Your task to perform on an android device: stop showing notifications on the lock screen Image 0: 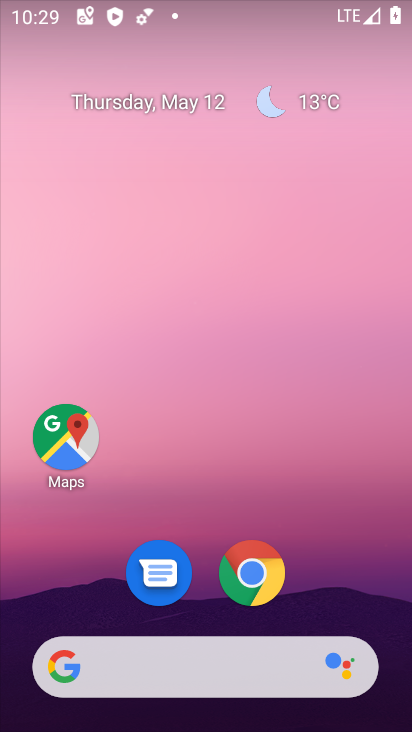
Step 0: drag from (212, 631) to (156, 6)
Your task to perform on an android device: stop showing notifications on the lock screen Image 1: 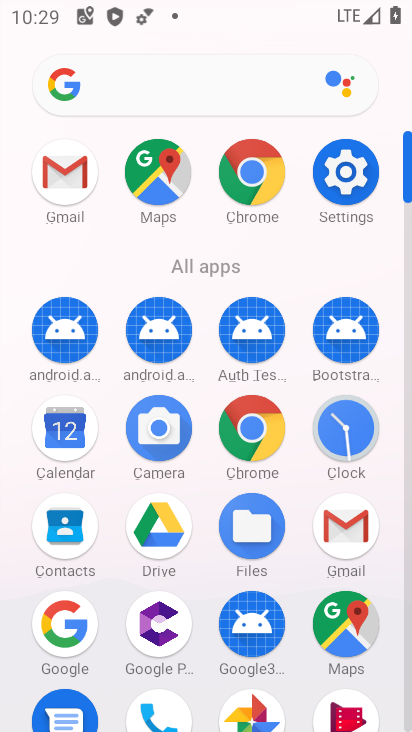
Step 1: click (355, 181)
Your task to perform on an android device: stop showing notifications on the lock screen Image 2: 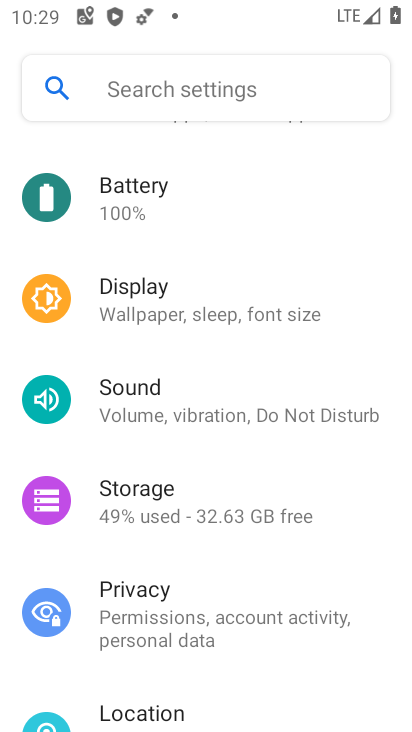
Step 2: drag from (243, 609) to (197, 100)
Your task to perform on an android device: stop showing notifications on the lock screen Image 3: 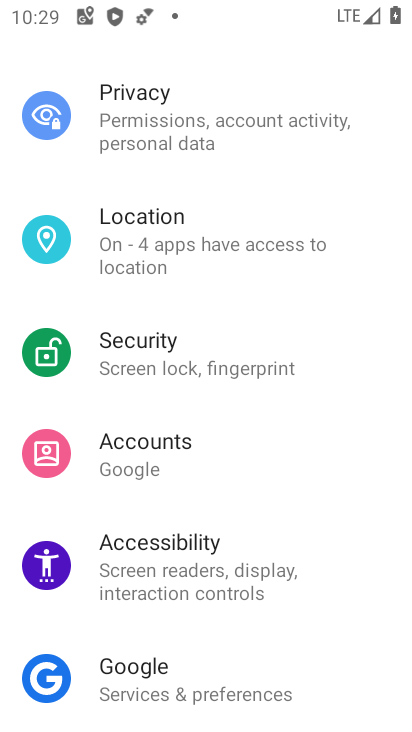
Step 3: drag from (232, 620) to (173, 215)
Your task to perform on an android device: stop showing notifications on the lock screen Image 4: 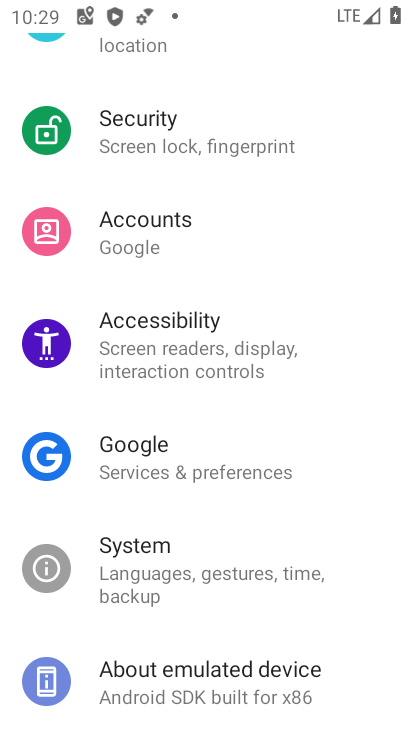
Step 4: drag from (190, 323) to (182, 716)
Your task to perform on an android device: stop showing notifications on the lock screen Image 5: 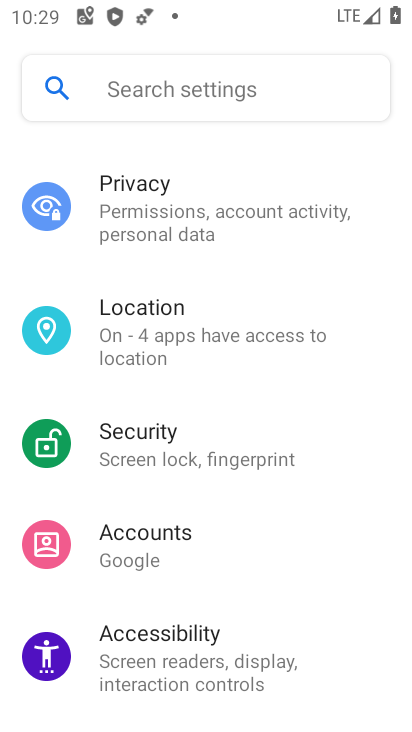
Step 5: drag from (179, 239) to (212, 731)
Your task to perform on an android device: stop showing notifications on the lock screen Image 6: 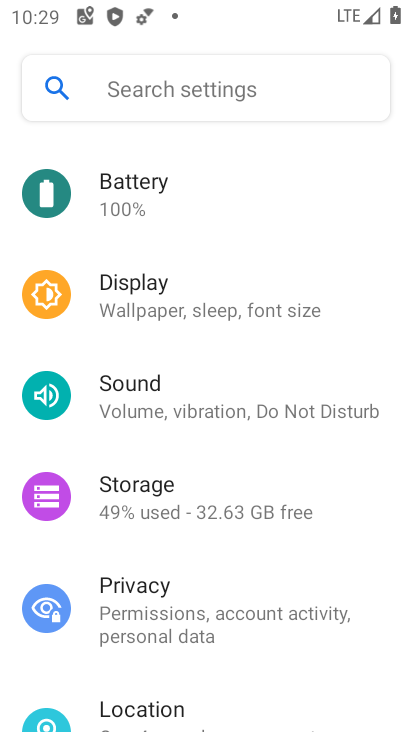
Step 6: drag from (220, 309) to (252, 709)
Your task to perform on an android device: stop showing notifications on the lock screen Image 7: 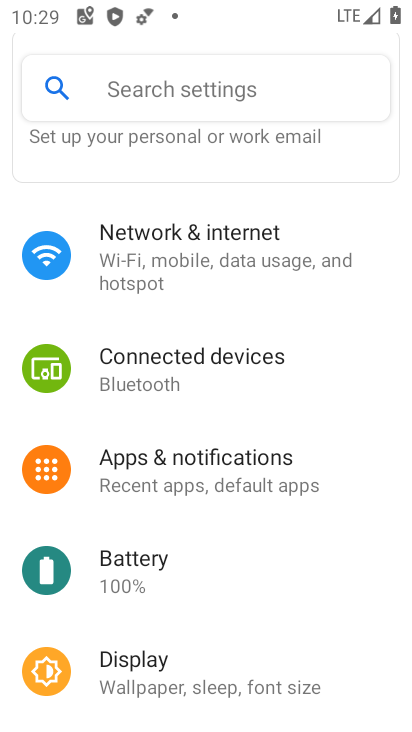
Step 7: click (228, 453)
Your task to perform on an android device: stop showing notifications on the lock screen Image 8: 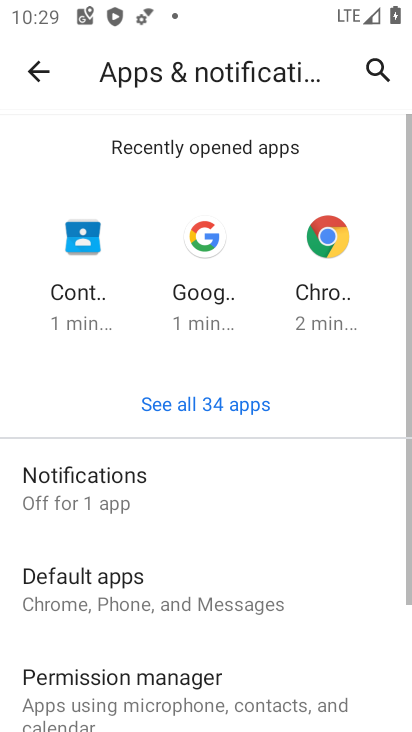
Step 8: click (146, 500)
Your task to perform on an android device: stop showing notifications on the lock screen Image 9: 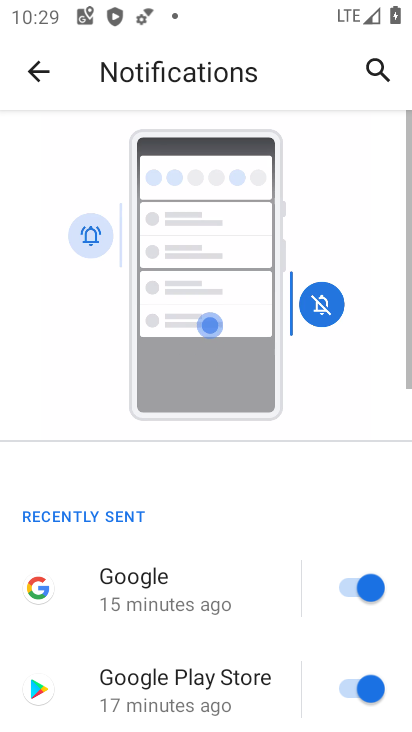
Step 9: drag from (182, 563) to (113, 10)
Your task to perform on an android device: stop showing notifications on the lock screen Image 10: 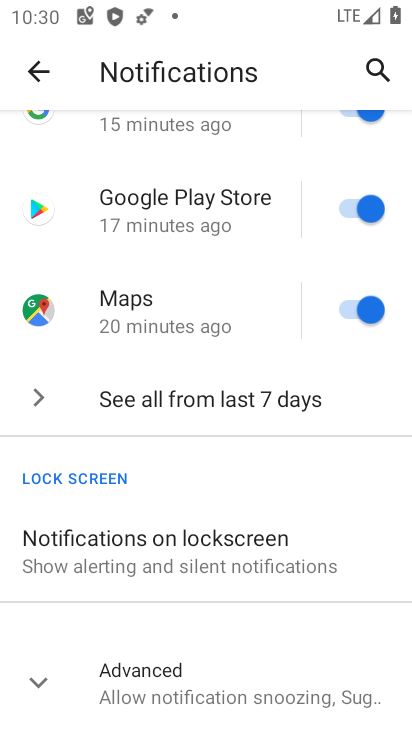
Step 10: click (181, 685)
Your task to perform on an android device: stop showing notifications on the lock screen Image 11: 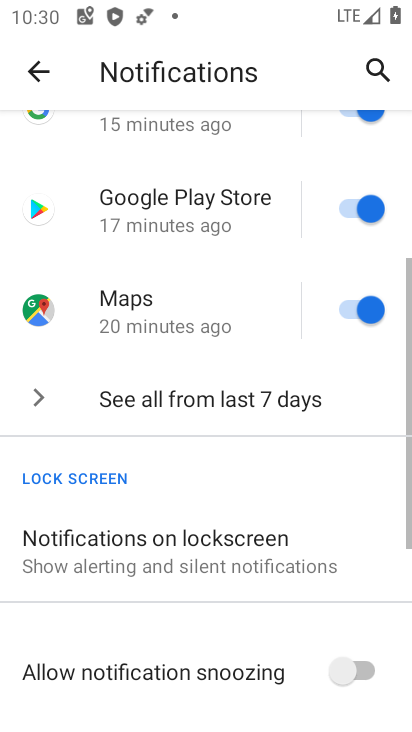
Step 11: drag from (180, 678) to (130, 165)
Your task to perform on an android device: stop showing notifications on the lock screen Image 12: 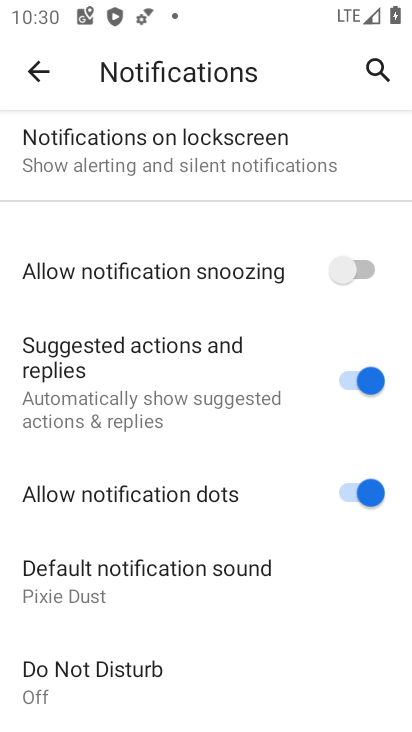
Step 12: drag from (234, 714) to (112, 103)
Your task to perform on an android device: stop showing notifications on the lock screen Image 13: 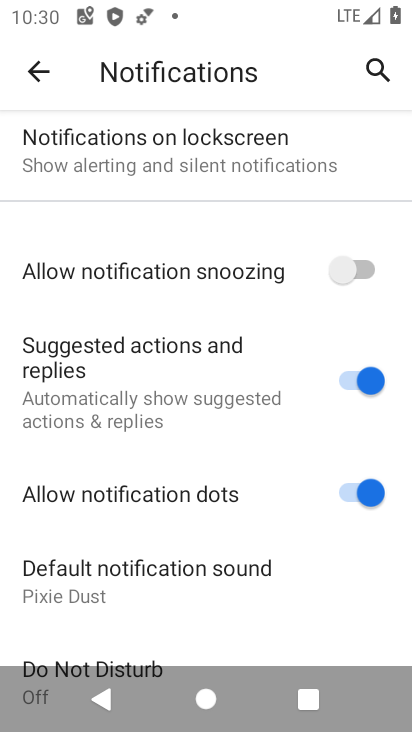
Step 13: drag from (184, 591) to (116, 64)
Your task to perform on an android device: stop showing notifications on the lock screen Image 14: 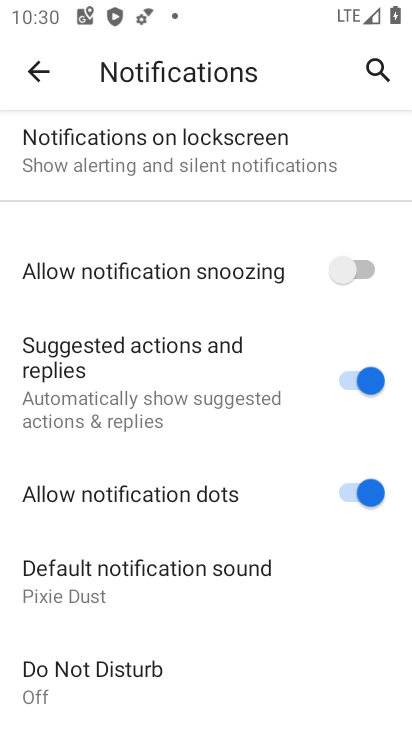
Step 14: click (215, 164)
Your task to perform on an android device: stop showing notifications on the lock screen Image 15: 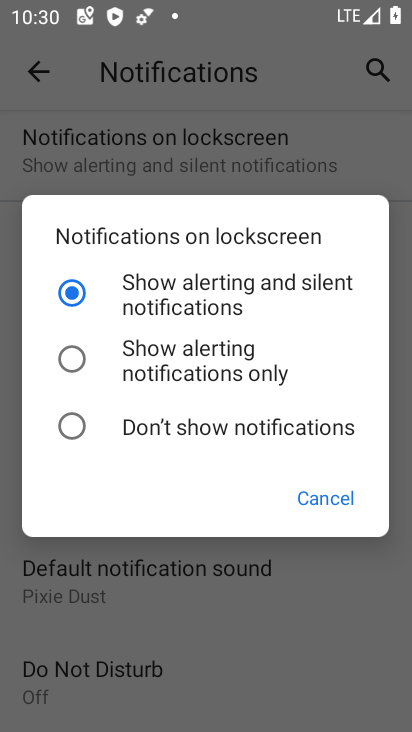
Step 15: click (184, 421)
Your task to perform on an android device: stop showing notifications on the lock screen Image 16: 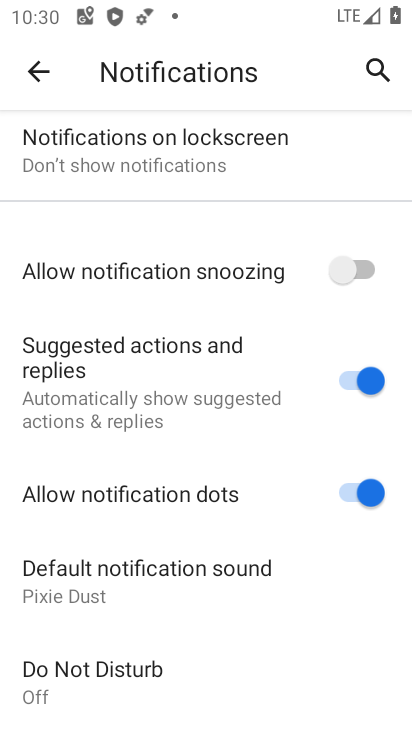
Step 16: task complete